Your task to perform on an android device: Open Android settings Image 0: 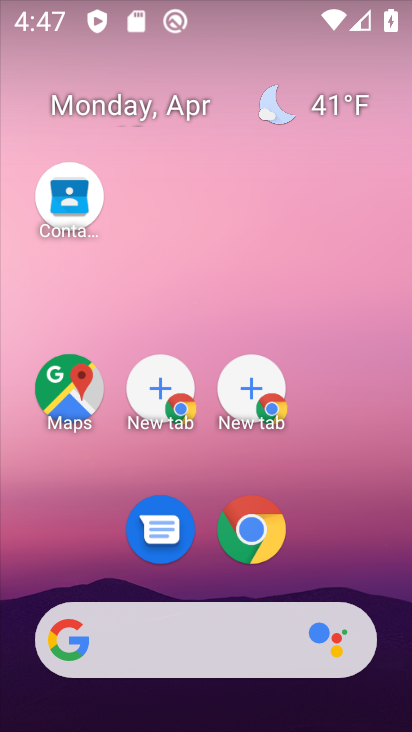
Step 0: drag from (240, 456) to (287, 16)
Your task to perform on an android device: Open Android settings Image 1: 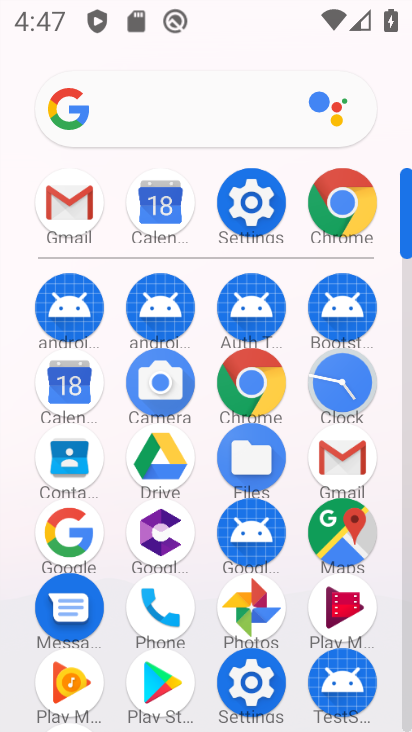
Step 1: click (270, 181)
Your task to perform on an android device: Open Android settings Image 2: 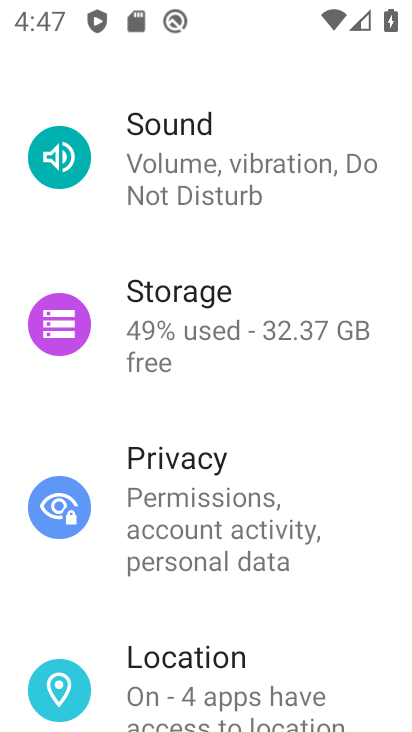
Step 2: drag from (190, 580) to (311, 40)
Your task to perform on an android device: Open Android settings Image 3: 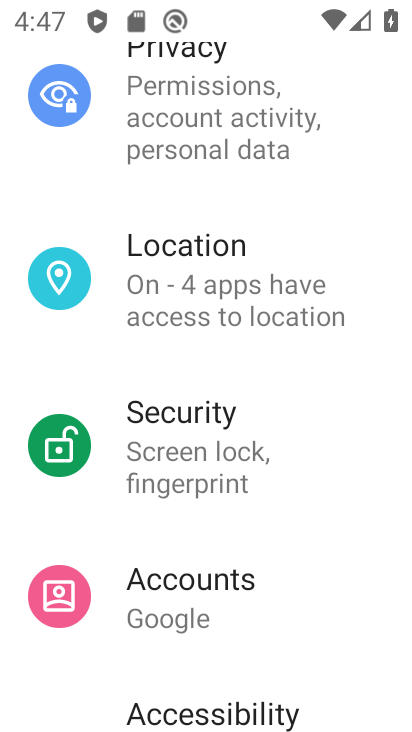
Step 3: drag from (196, 571) to (407, 19)
Your task to perform on an android device: Open Android settings Image 4: 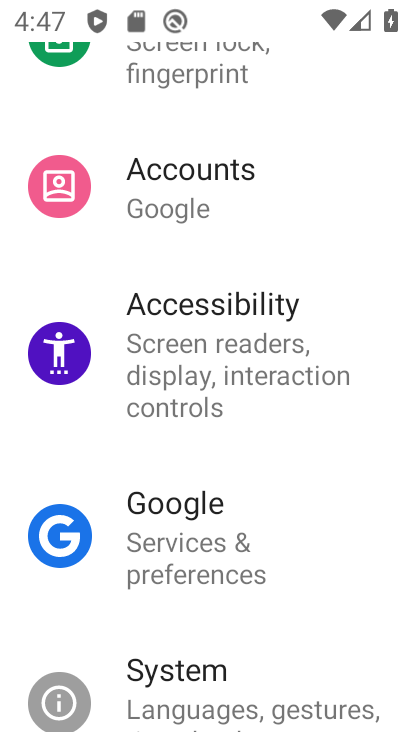
Step 4: drag from (253, 569) to (390, 23)
Your task to perform on an android device: Open Android settings Image 5: 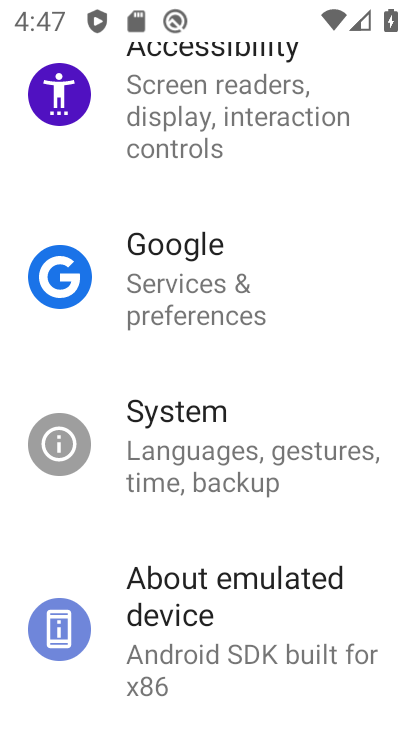
Step 5: click (205, 621)
Your task to perform on an android device: Open Android settings Image 6: 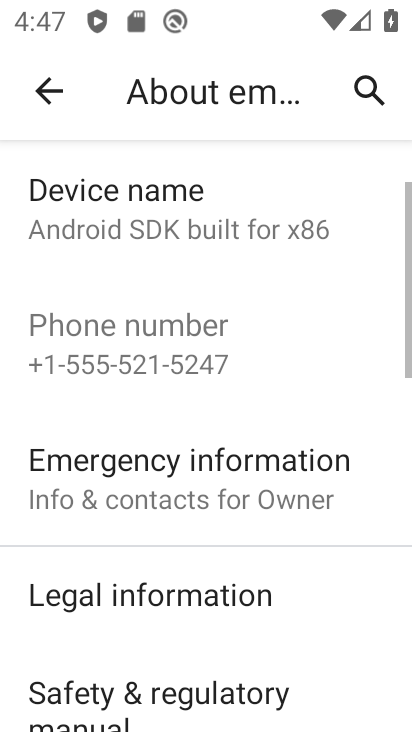
Step 6: task complete